Your task to perform on an android device: turn off translation in the chrome app Image 0: 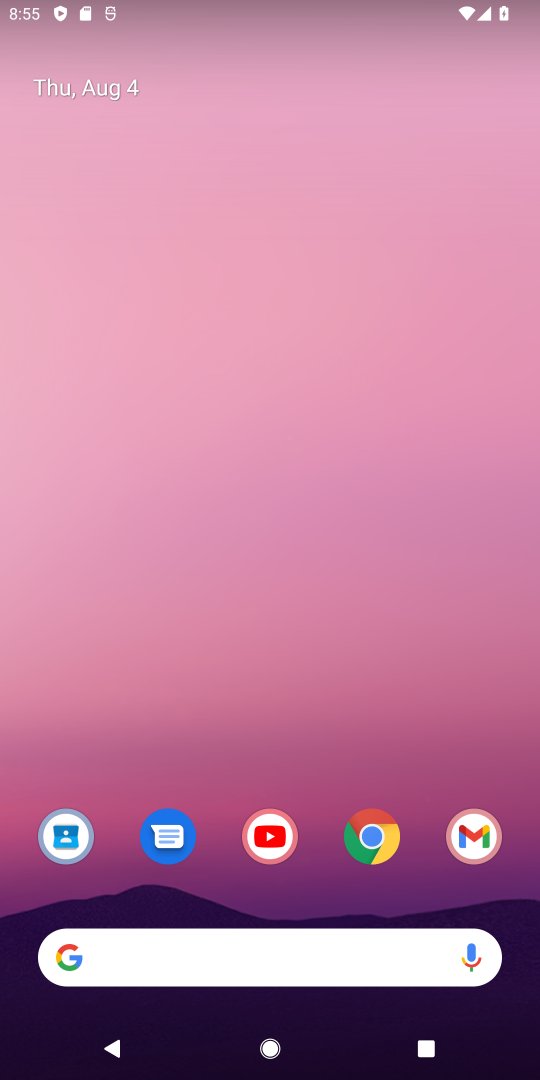
Step 0: click (372, 841)
Your task to perform on an android device: turn off translation in the chrome app Image 1: 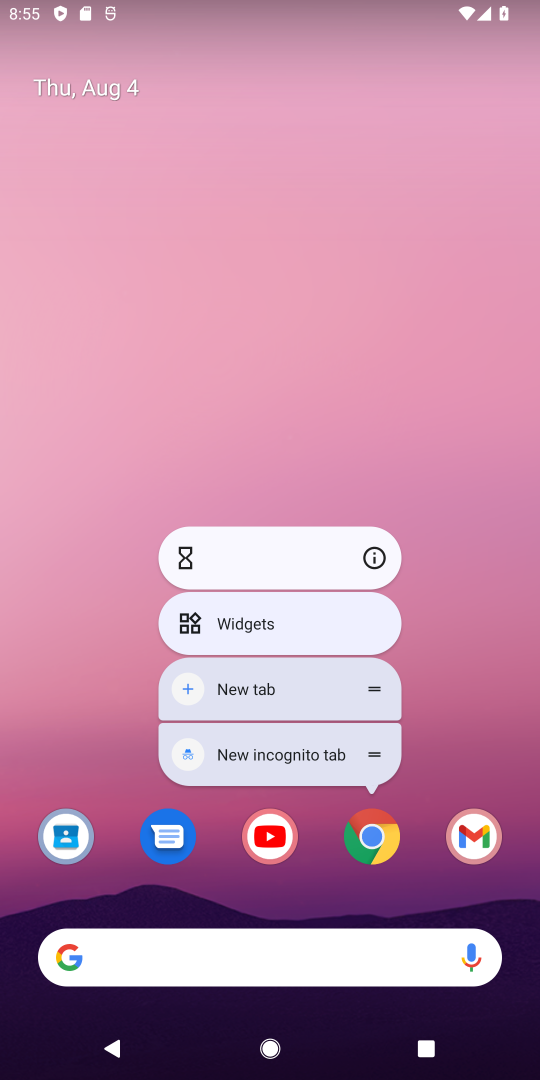
Step 1: click (371, 838)
Your task to perform on an android device: turn off translation in the chrome app Image 2: 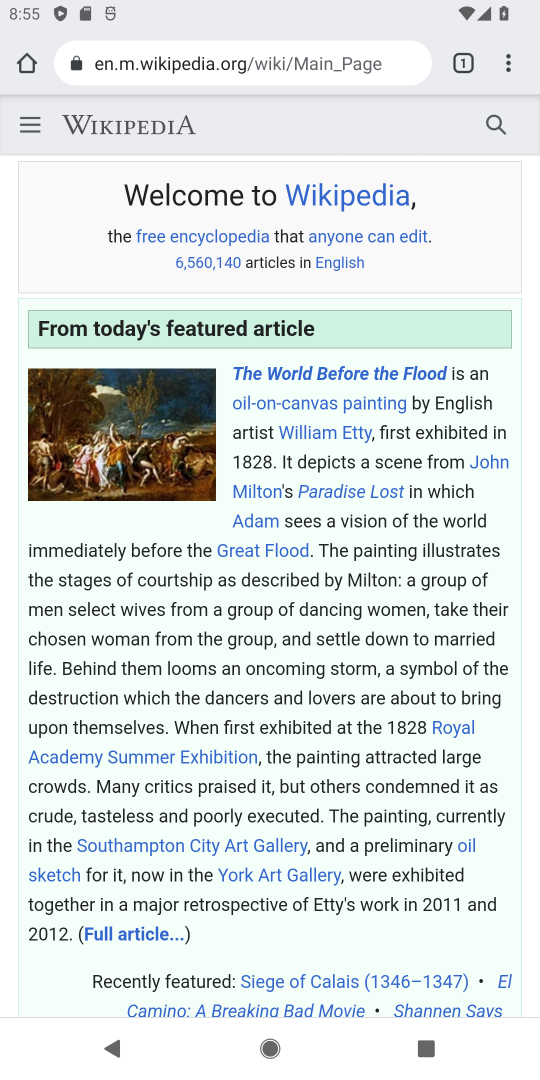
Step 2: drag from (512, 60) to (343, 746)
Your task to perform on an android device: turn off translation in the chrome app Image 3: 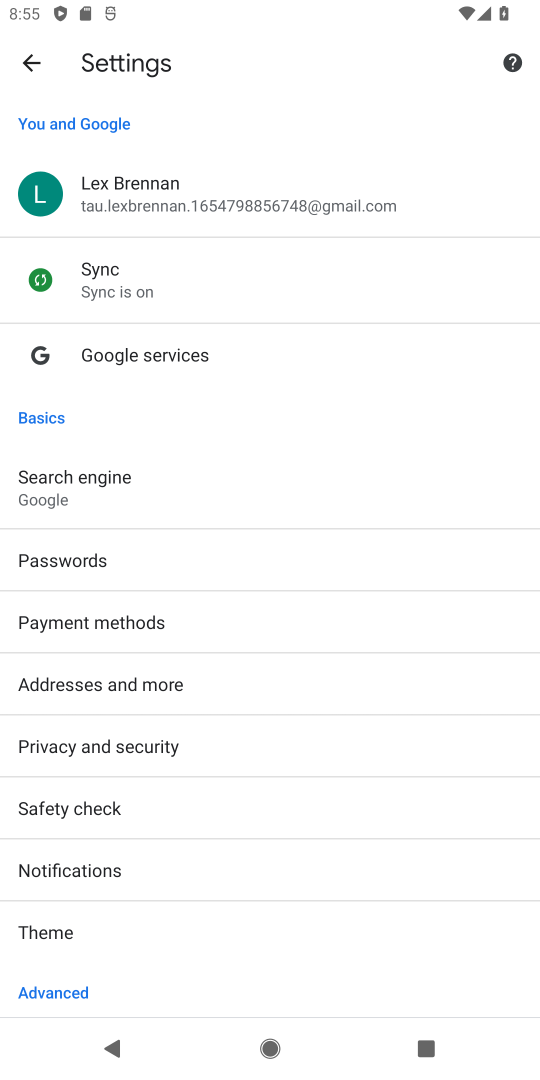
Step 3: drag from (180, 878) to (321, 101)
Your task to perform on an android device: turn off translation in the chrome app Image 4: 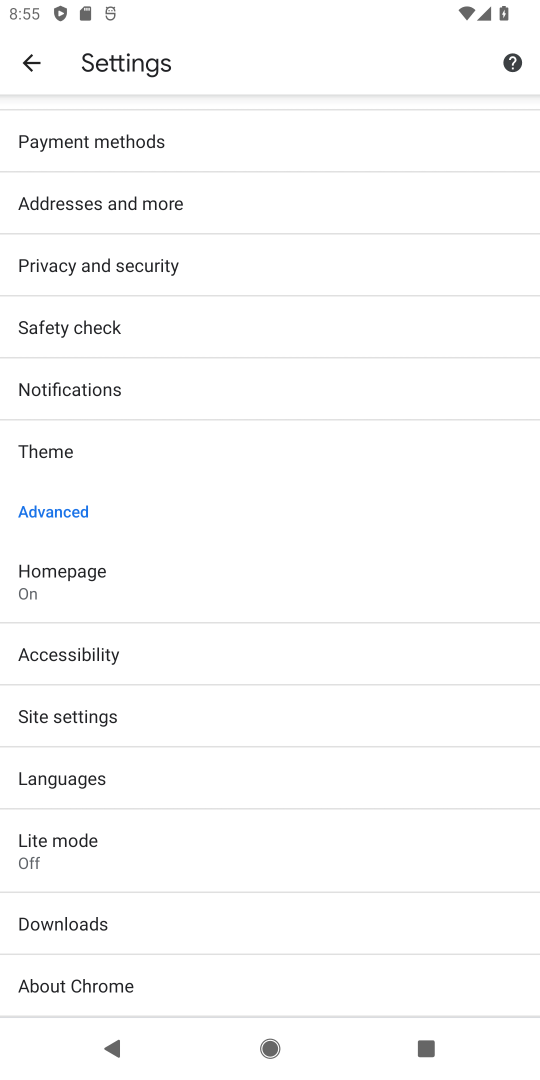
Step 4: click (93, 775)
Your task to perform on an android device: turn off translation in the chrome app Image 5: 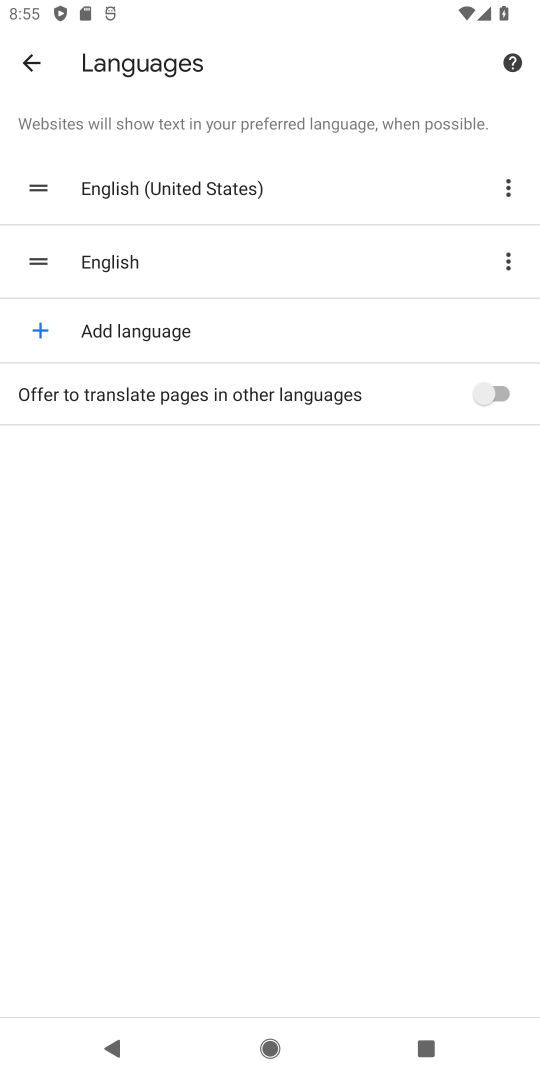
Step 5: task complete